Your task to perform on an android device: change alarm snooze length Image 0: 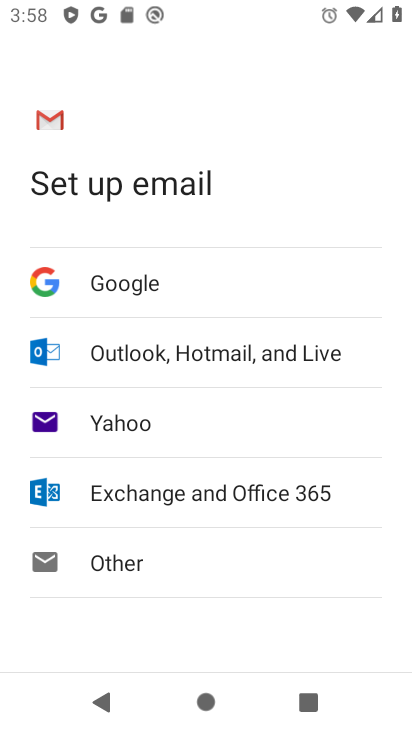
Step 0: drag from (208, 589) to (407, 512)
Your task to perform on an android device: change alarm snooze length Image 1: 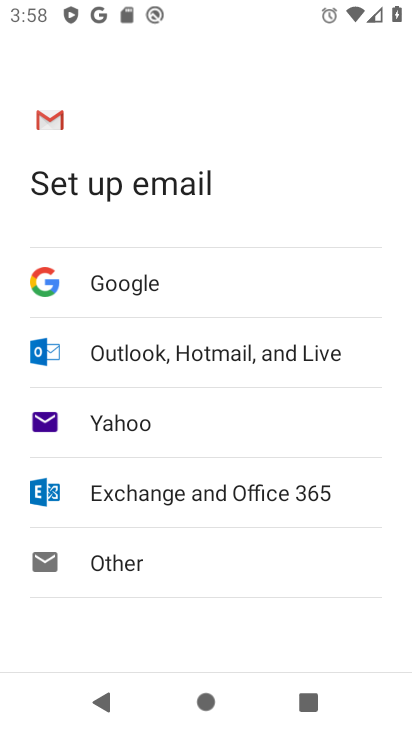
Step 1: press home button
Your task to perform on an android device: change alarm snooze length Image 2: 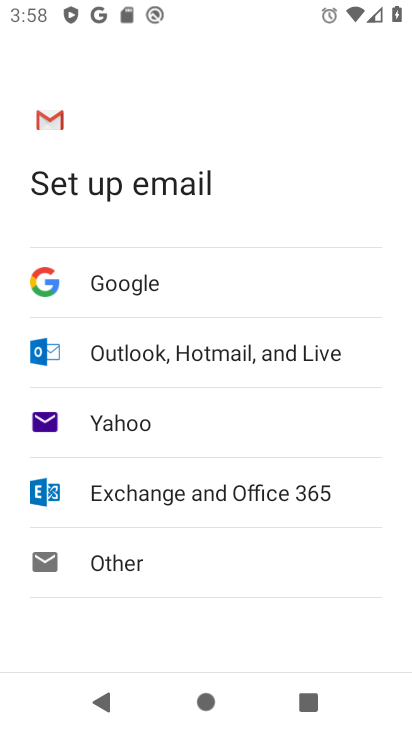
Step 2: click (404, 311)
Your task to perform on an android device: change alarm snooze length Image 3: 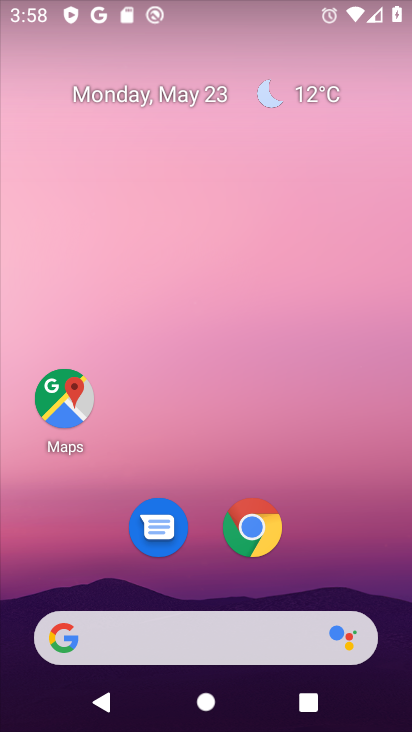
Step 3: drag from (211, 589) to (185, 102)
Your task to perform on an android device: change alarm snooze length Image 4: 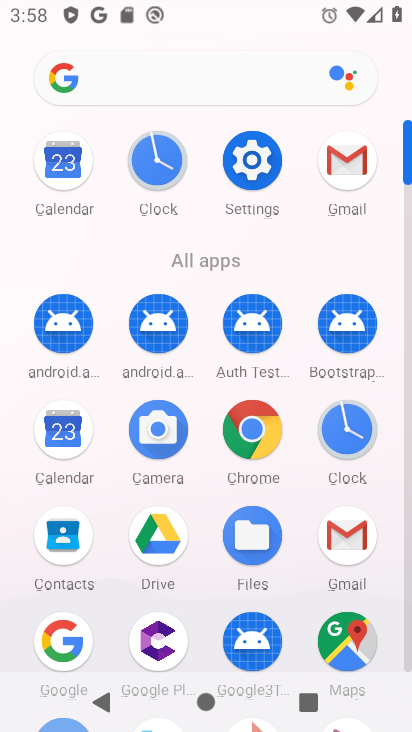
Step 4: click (345, 423)
Your task to perform on an android device: change alarm snooze length Image 5: 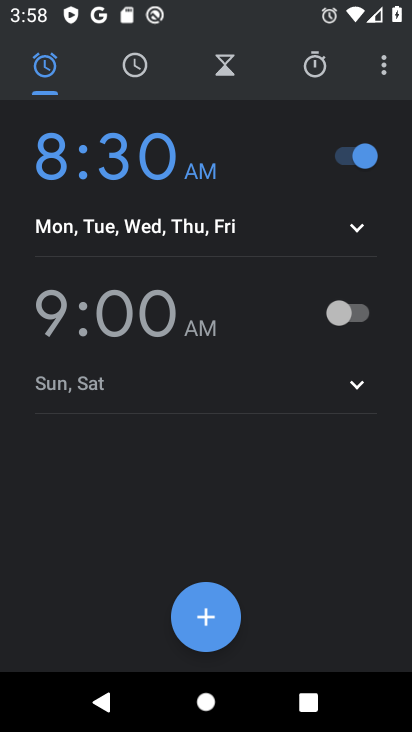
Step 5: click (385, 57)
Your task to perform on an android device: change alarm snooze length Image 6: 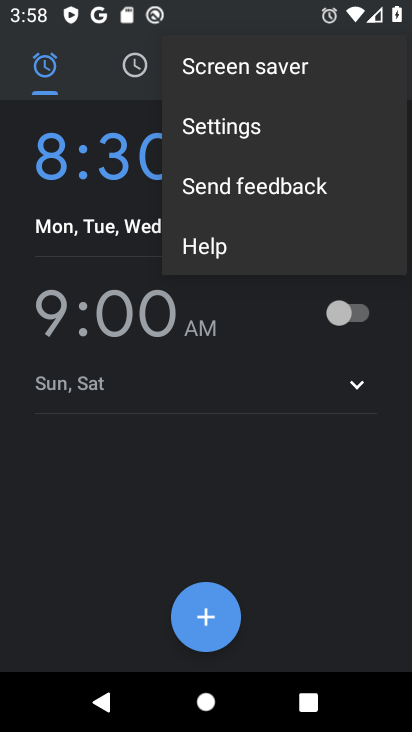
Step 6: click (268, 128)
Your task to perform on an android device: change alarm snooze length Image 7: 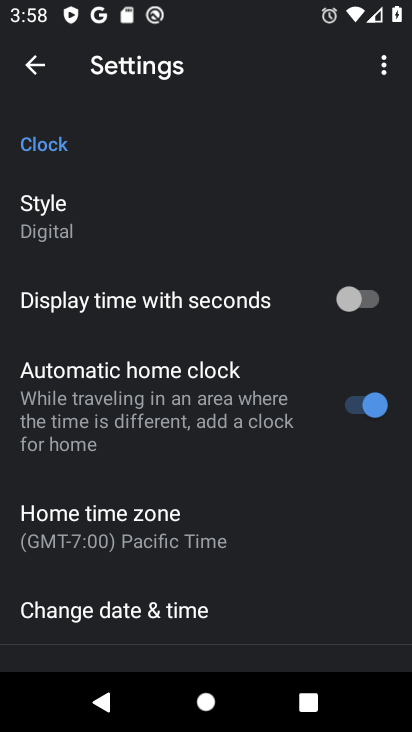
Step 7: drag from (249, 622) to (285, 83)
Your task to perform on an android device: change alarm snooze length Image 8: 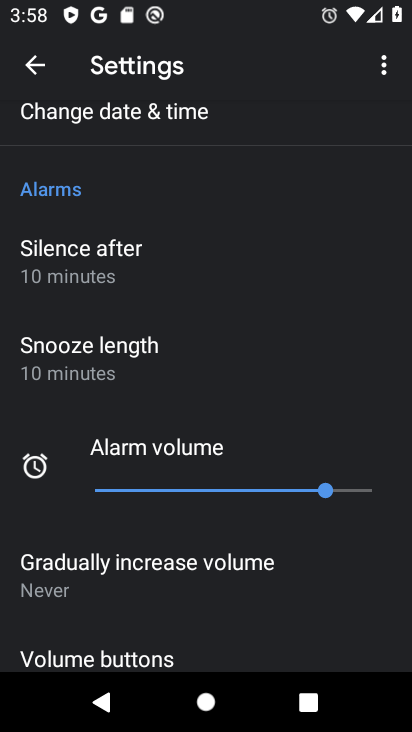
Step 8: click (166, 369)
Your task to perform on an android device: change alarm snooze length Image 9: 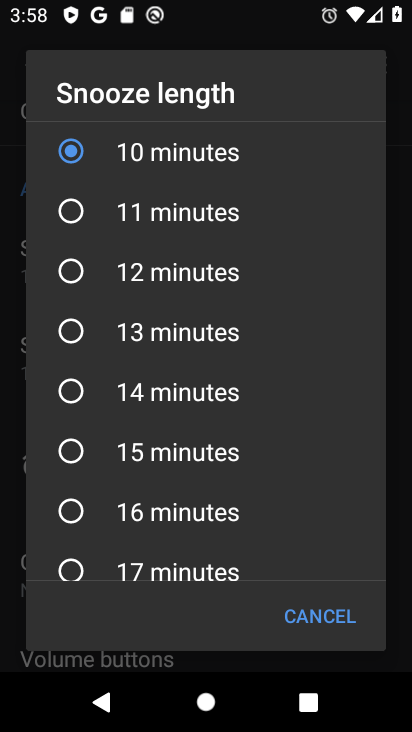
Step 9: drag from (103, 196) to (86, 518)
Your task to perform on an android device: change alarm snooze length Image 10: 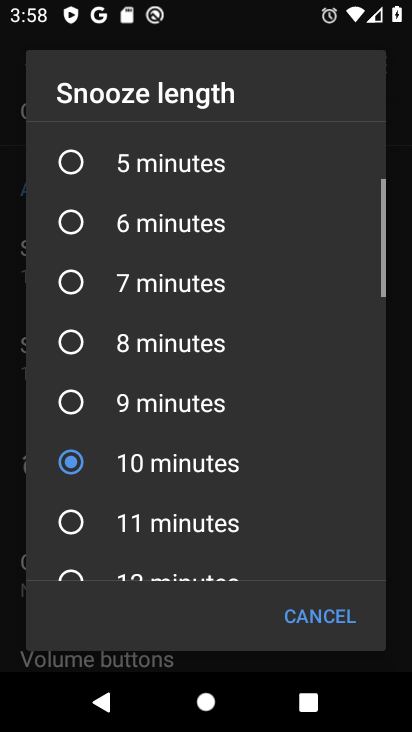
Step 10: click (86, 518)
Your task to perform on an android device: change alarm snooze length Image 11: 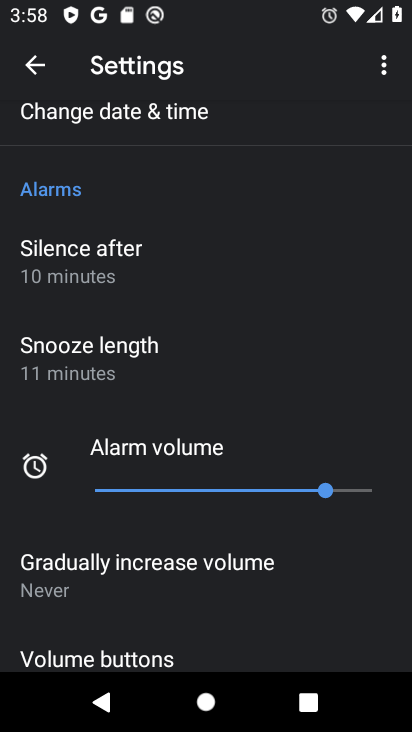
Step 11: click (142, 356)
Your task to perform on an android device: change alarm snooze length Image 12: 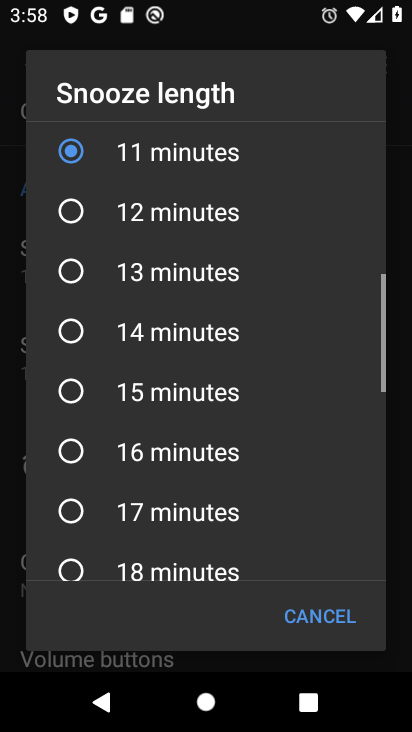
Step 12: drag from (106, 191) to (112, 448)
Your task to perform on an android device: change alarm snooze length Image 13: 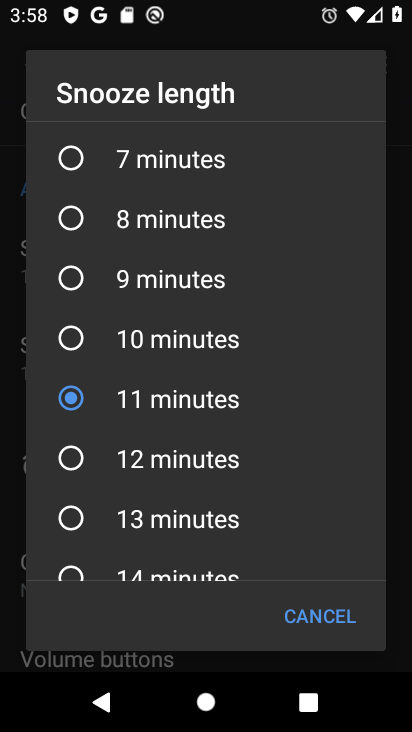
Step 13: click (70, 155)
Your task to perform on an android device: change alarm snooze length Image 14: 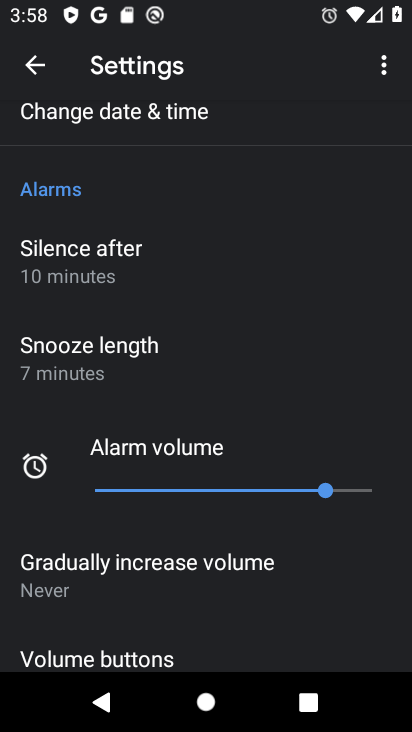
Step 14: task complete